Your task to perform on an android device: set an alarm Image 0: 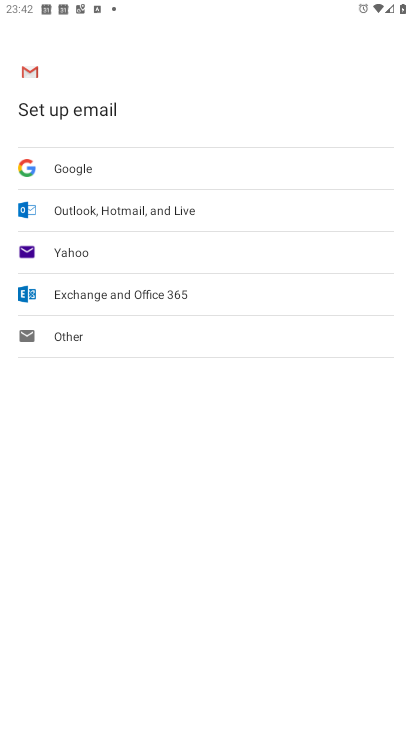
Step 0: press home button
Your task to perform on an android device: set an alarm Image 1: 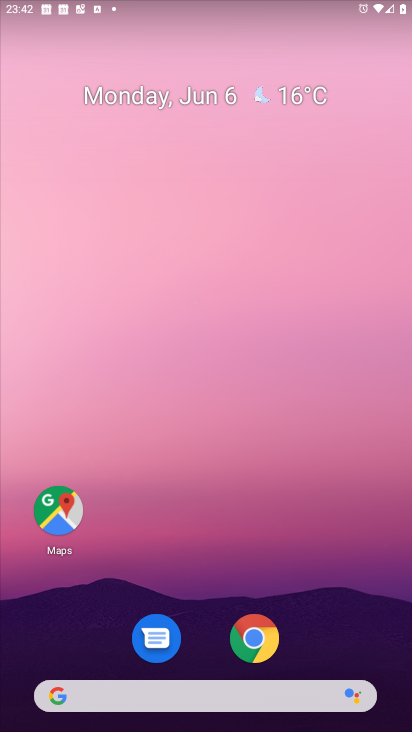
Step 1: drag from (184, 683) to (258, 129)
Your task to perform on an android device: set an alarm Image 2: 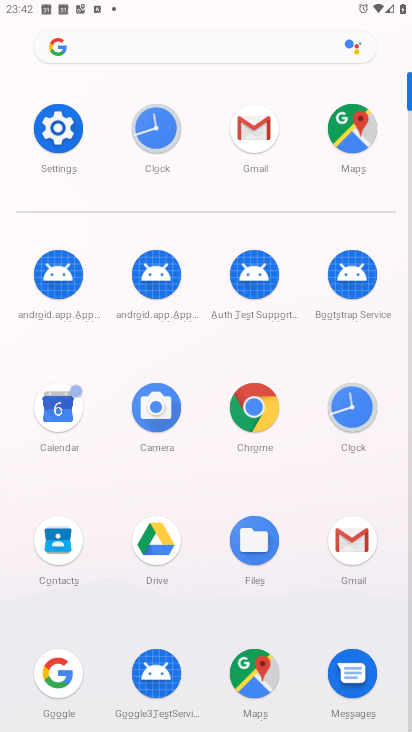
Step 2: click (351, 420)
Your task to perform on an android device: set an alarm Image 3: 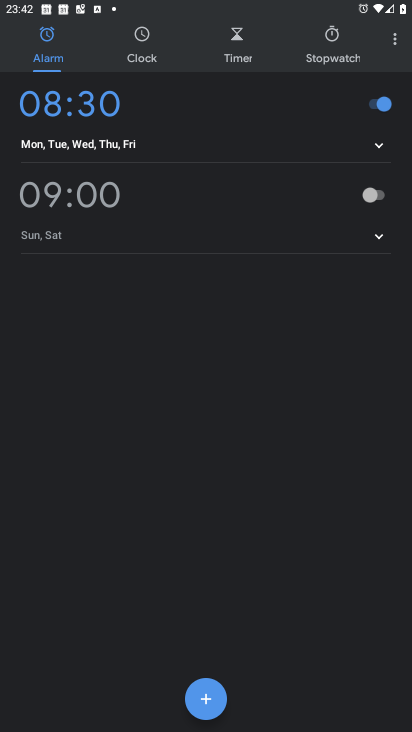
Step 3: click (244, 208)
Your task to perform on an android device: set an alarm Image 4: 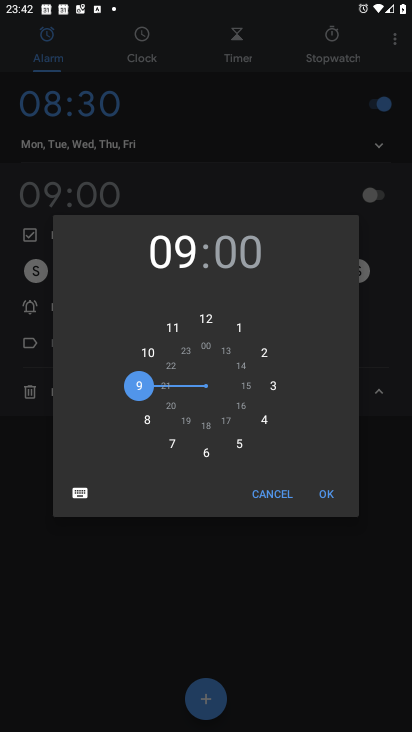
Step 4: click (181, 341)
Your task to perform on an android device: set an alarm Image 5: 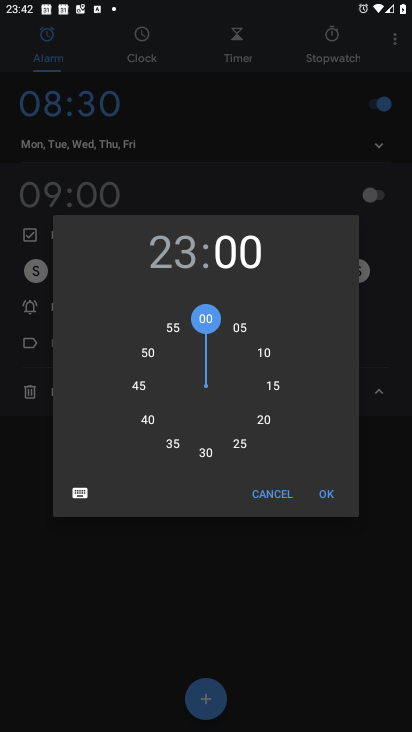
Step 5: click (328, 495)
Your task to perform on an android device: set an alarm Image 6: 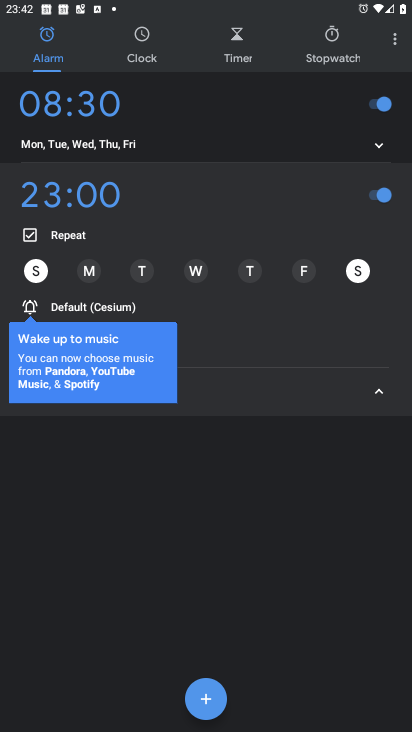
Step 6: click (142, 272)
Your task to perform on an android device: set an alarm Image 7: 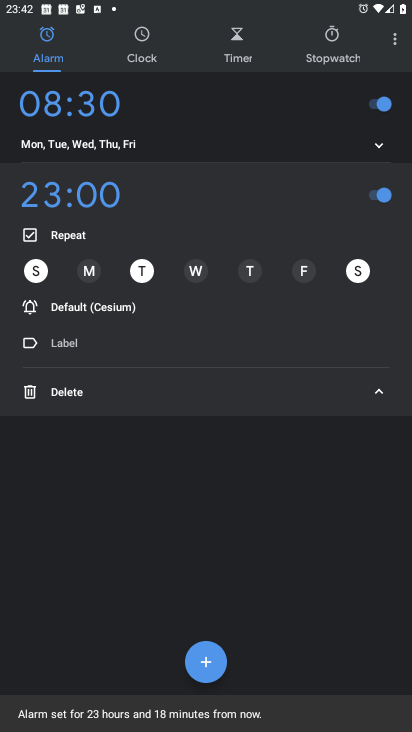
Step 7: click (200, 270)
Your task to perform on an android device: set an alarm Image 8: 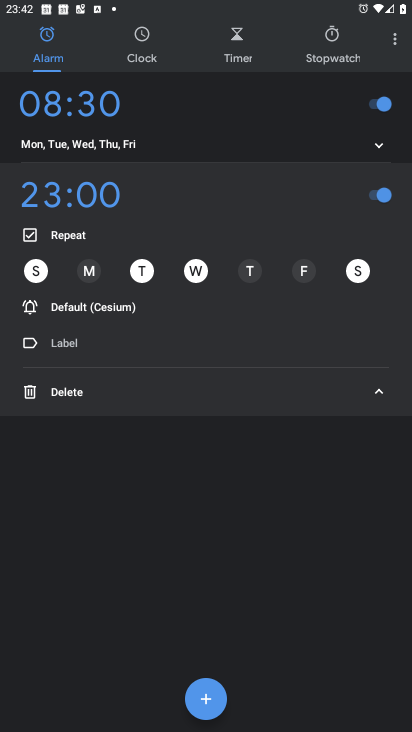
Step 8: click (248, 278)
Your task to perform on an android device: set an alarm Image 9: 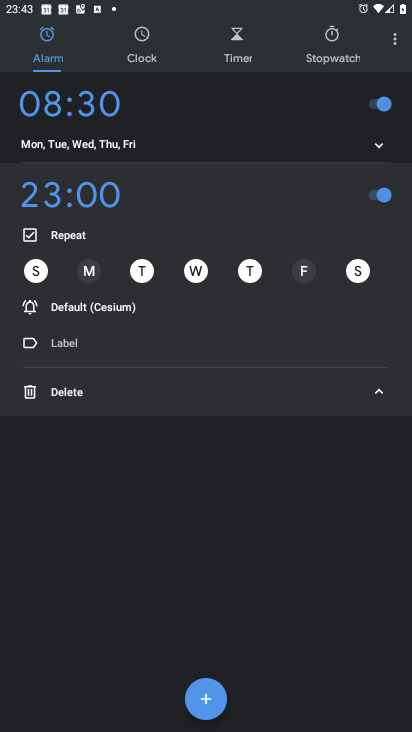
Step 9: task complete